Your task to perform on an android device: add a contact Image 0: 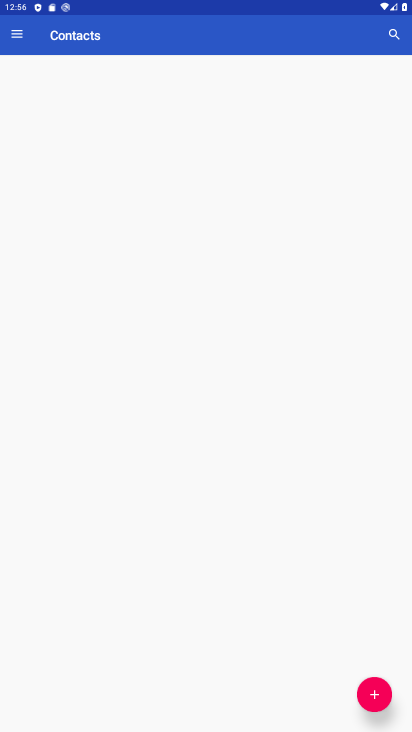
Step 0: click (377, 696)
Your task to perform on an android device: add a contact Image 1: 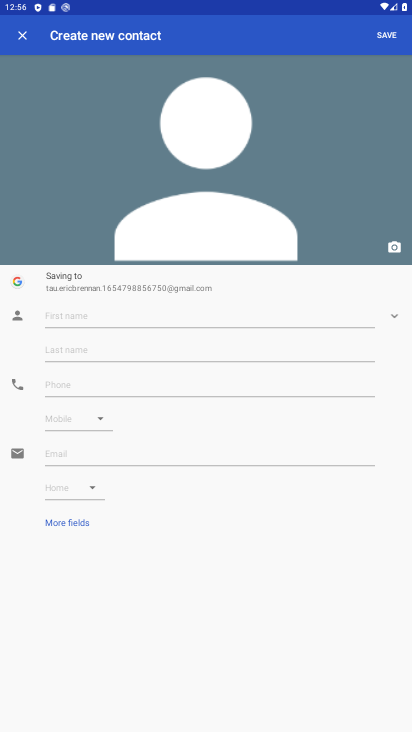
Step 1: click (338, 310)
Your task to perform on an android device: add a contact Image 2: 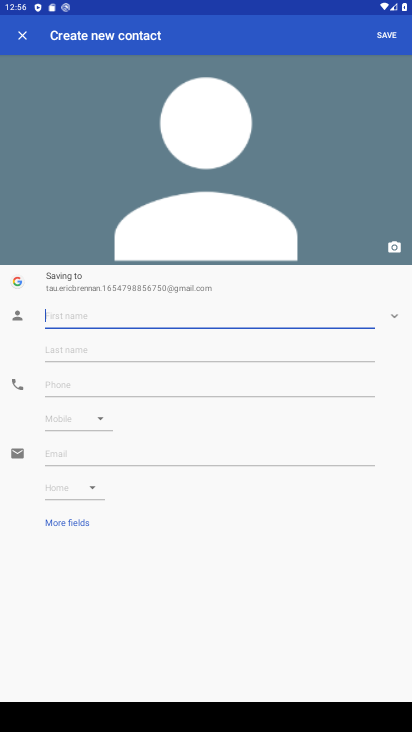
Step 2: type "bhj"
Your task to perform on an android device: add a contact Image 3: 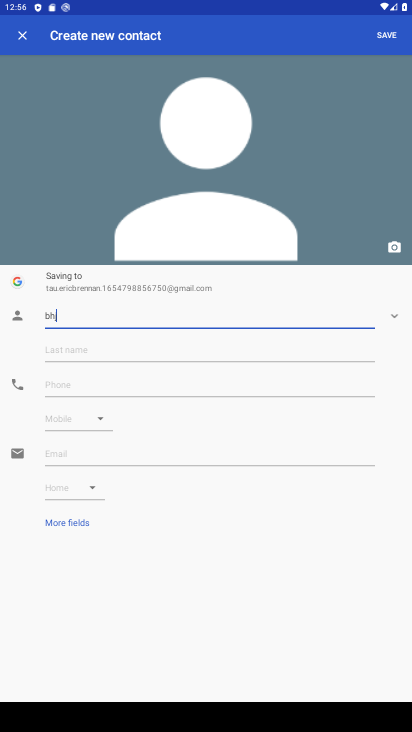
Step 3: click (58, 387)
Your task to perform on an android device: add a contact Image 4: 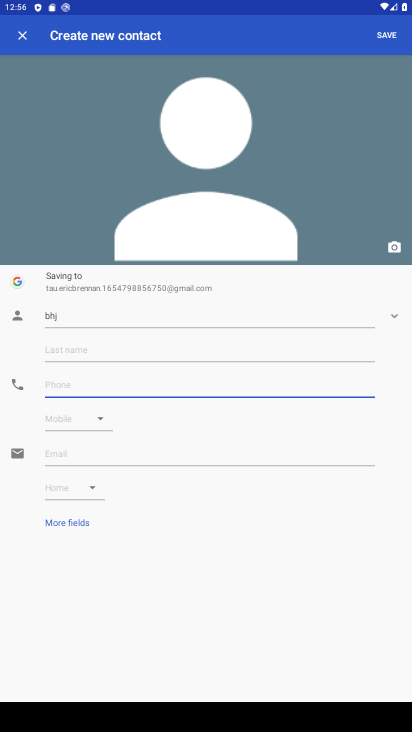
Step 4: type "98766543321"
Your task to perform on an android device: add a contact Image 5: 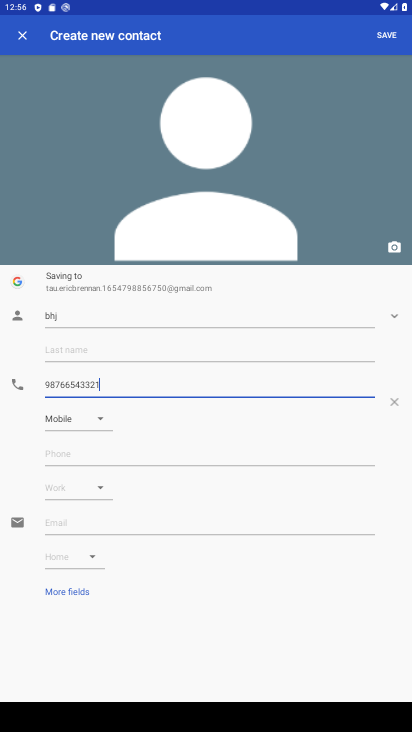
Step 5: click (379, 31)
Your task to perform on an android device: add a contact Image 6: 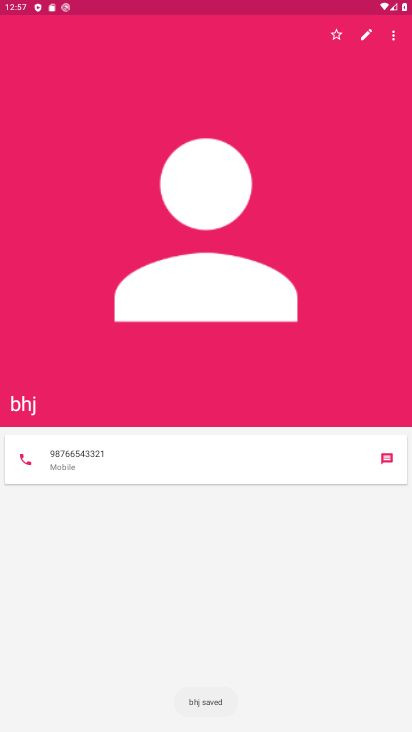
Step 6: task complete